Your task to perform on an android device: toggle improve location accuracy Image 0: 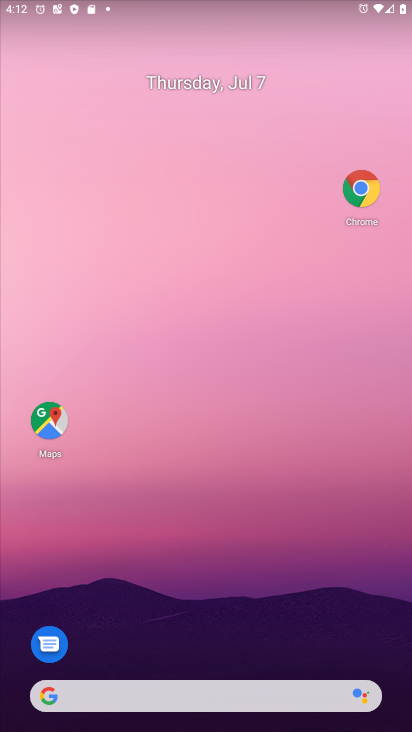
Step 0: press home button
Your task to perform on an android device: toggle improve location accuracy Image 1: 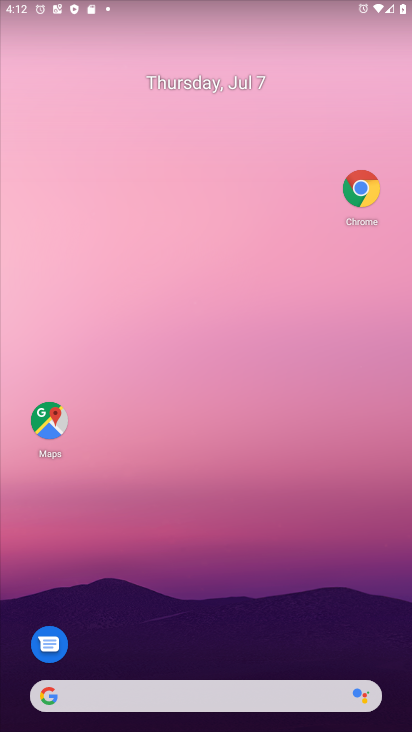
Step 1: drag from (244, 654) to (185, 4)
Your task to perform on an android device: toggle improve location accuracy Image 2: 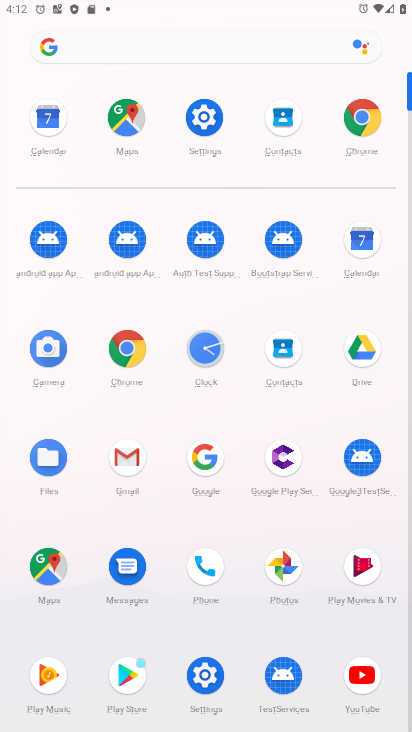
Step 2: click (201, 119)
Your task to perform on an android device: toggle improve location accuracy Image 3: 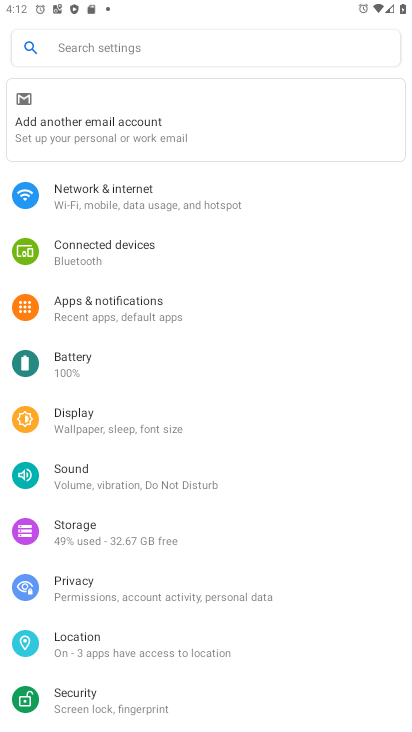
Step 3: click (117, 636)
Your task to perform on an android device: toggle improve location accuracy Image 4: 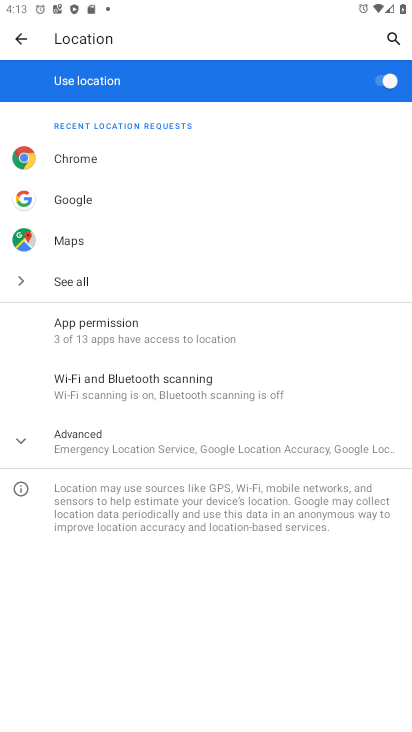
Step 4: click (91, 429)
Your task to perform on an android device: toggle improve location accuracy Image 5: 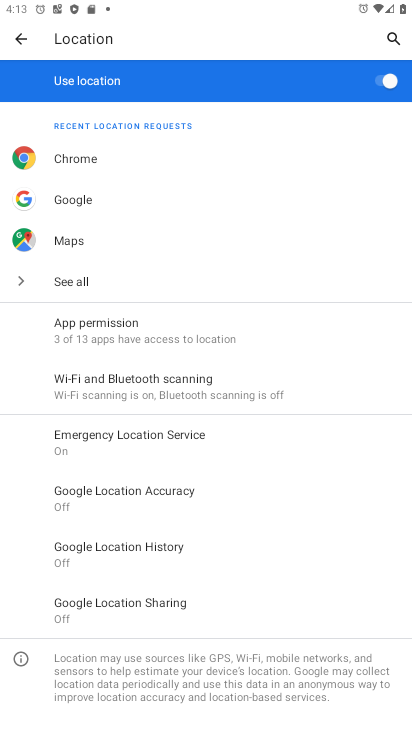
Step 5: click (102, 500)
Your task to perform on an android device: toggle improve location accuracy Image 6: 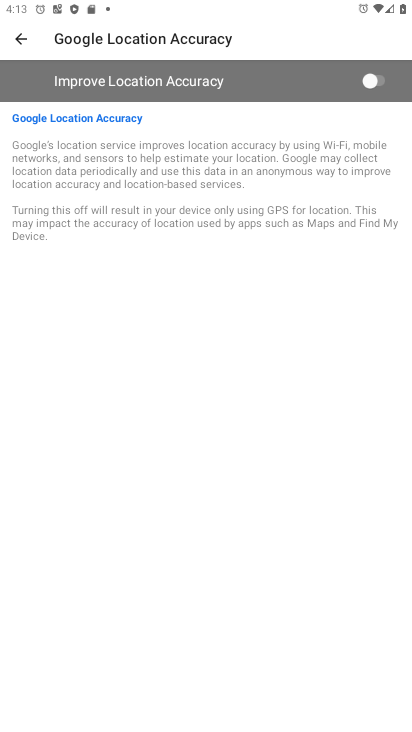
Step 6: click (318, 92)
Your task to perform on an android device: toggle improve location accuracy Image 7: 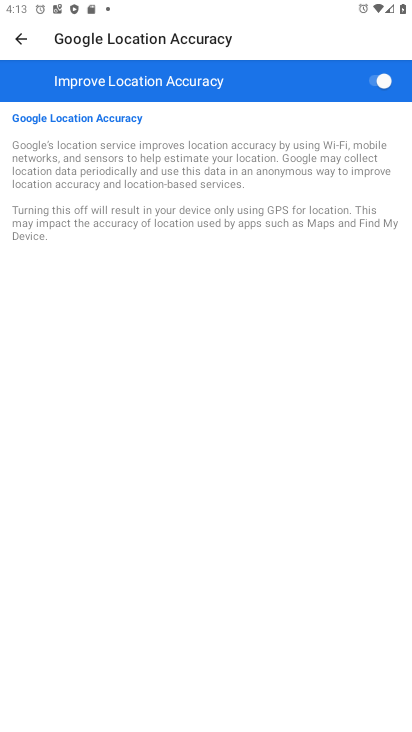
Step 7: task complete